Your task to perform on an android device: Go to Google Image 0: 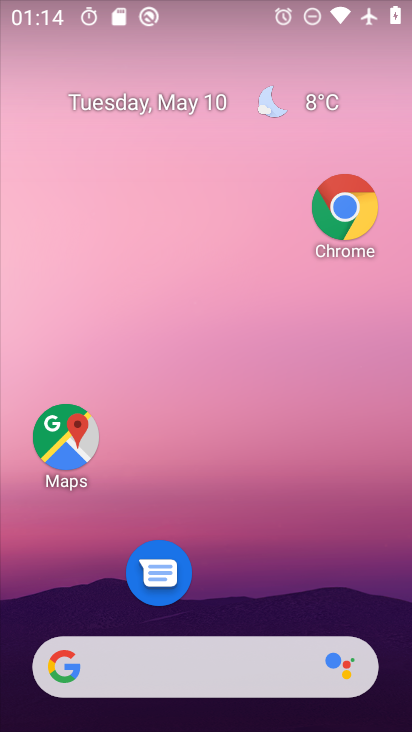
Step 0: drag from (251, 588) to (280, 111)
Your task to perform on an android device: Go to Google Image 1: 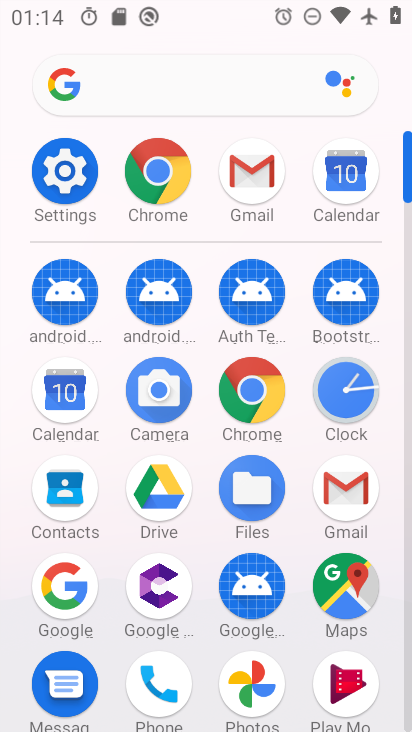
Step 1: click (71, 579)
Your task to perform on an android device: Go to Google Image 2: 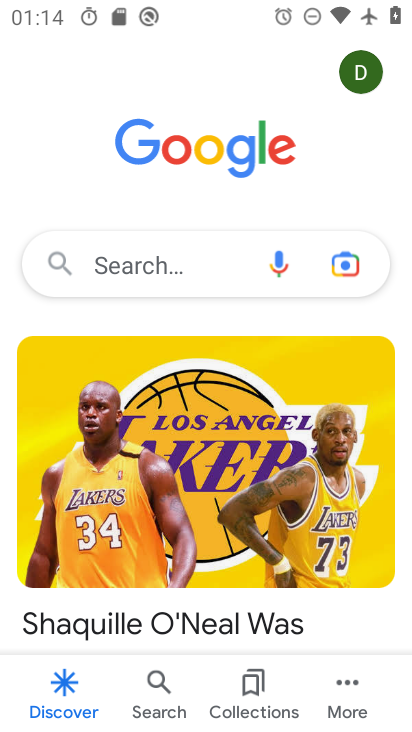
Step 2: task complete